Your task to perform on an android device: Open Amazon Image 0: 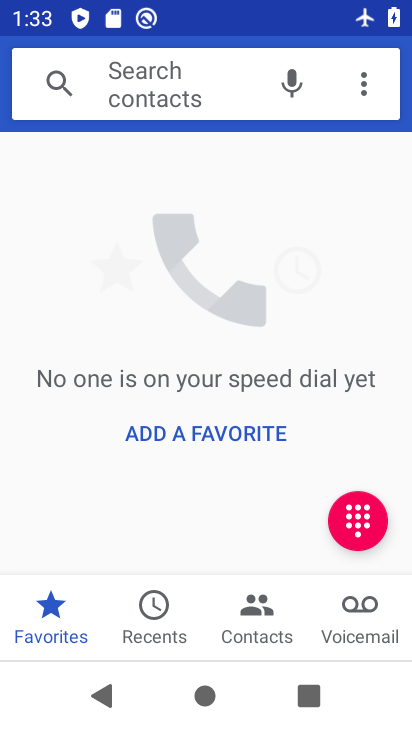
Step 0: press home button
Your task to perform on an android device: Open Amazon Image 1: 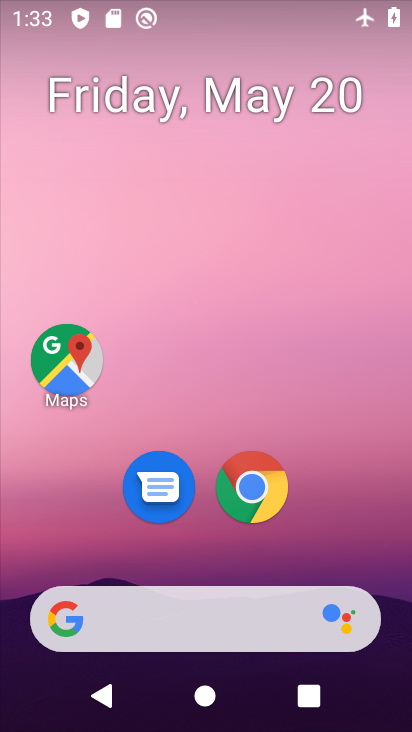
Step 1: drag from (310, 537) to (253, 84)
Your task to perform on an android device: Open Amazon Image 2: 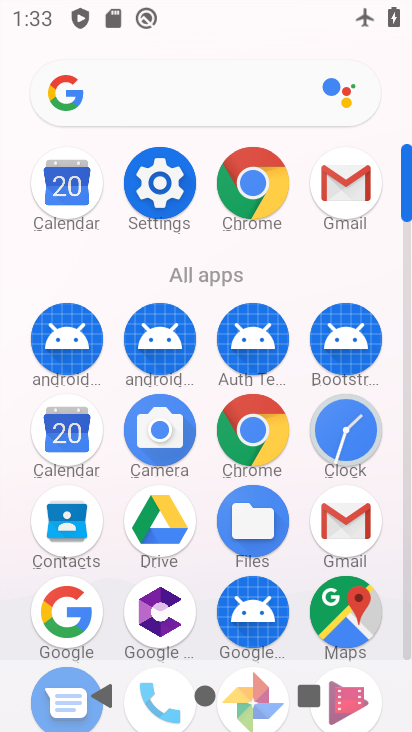
Step 2: click (252, 208)
Your task to perform on an android device: Open Amazon Image 3: 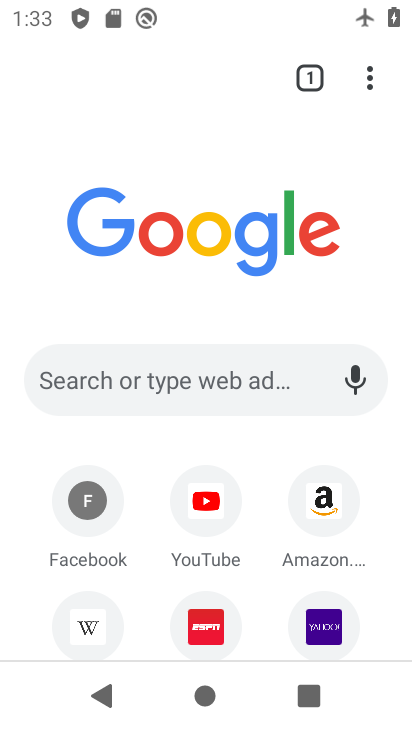
Step 3: click (316, 512)
Your task to perform on an android device: Open Amazon Image 4: 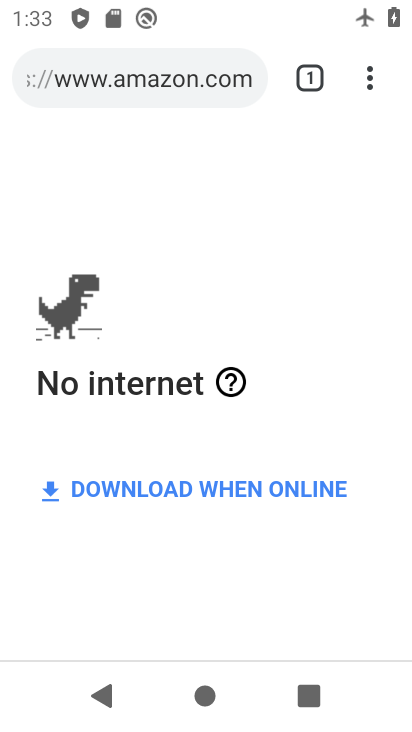
Step 4: task complete